Your task to perform on an android device: turn on data saver in the chrome app Image 0: 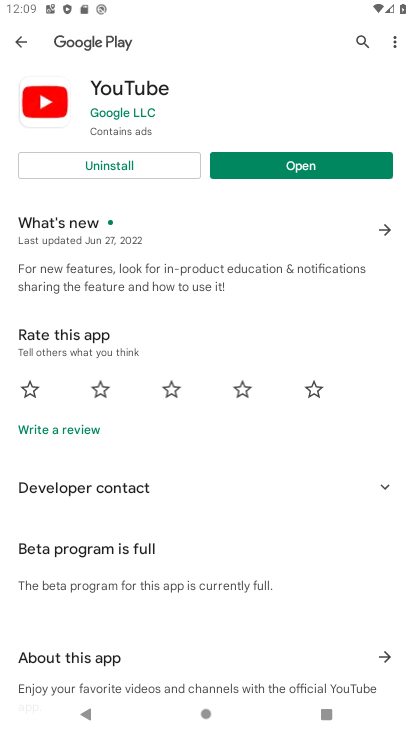
Step 0: press home button
Your task to perform on an android device: turn on data saver in the chrome app Image 1: 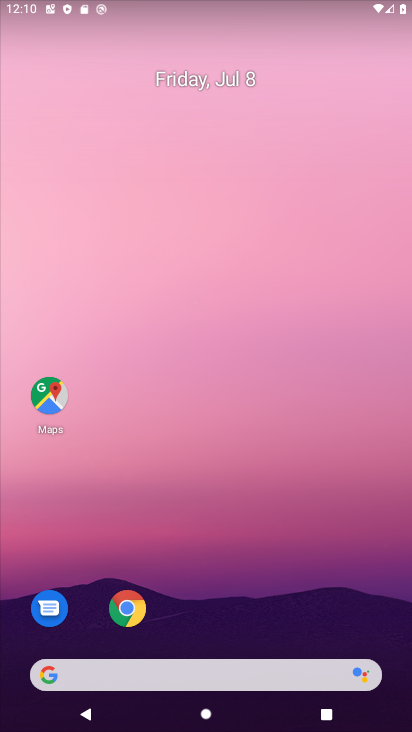
Step 1: drag from (325, 591) to (323, 301)
Your task to perform on an android device: turn on data saver in the chrome app Image 2: 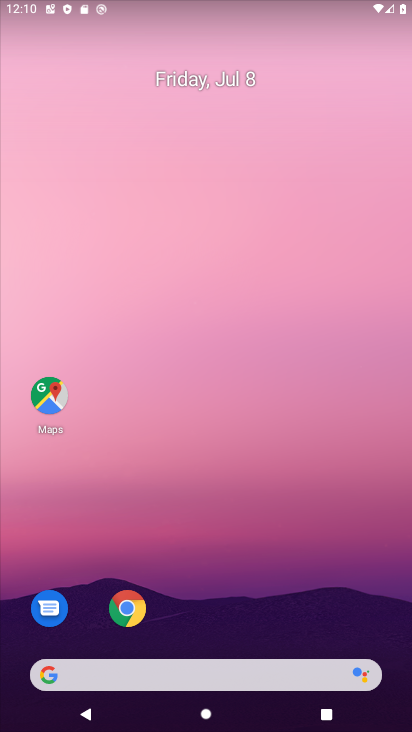
Step 2: click (120, 615)
Your task to perform on an android device: turn on data saver in the chrome app Image 3: 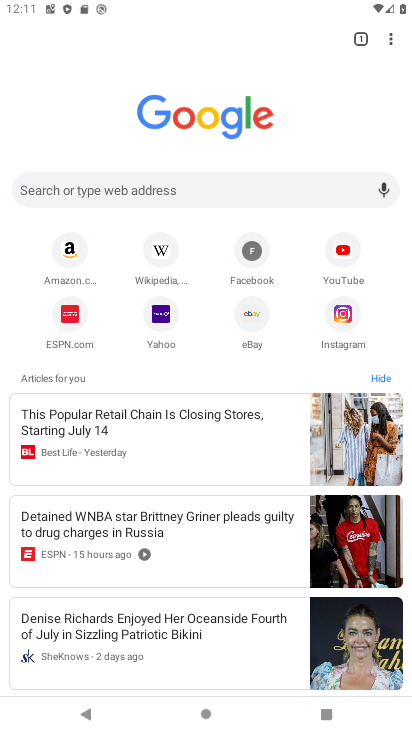
Step 3: click (387, 28)
Your task to perform on an android device: turn on data saver in the chrome app Image 4: 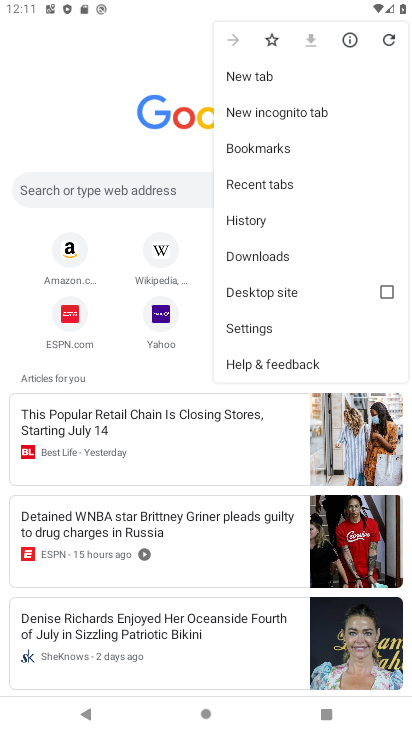
Step 4: click (299, 320)
Your task to perform on an android device: turn on data saver in the chrome app Image 5: 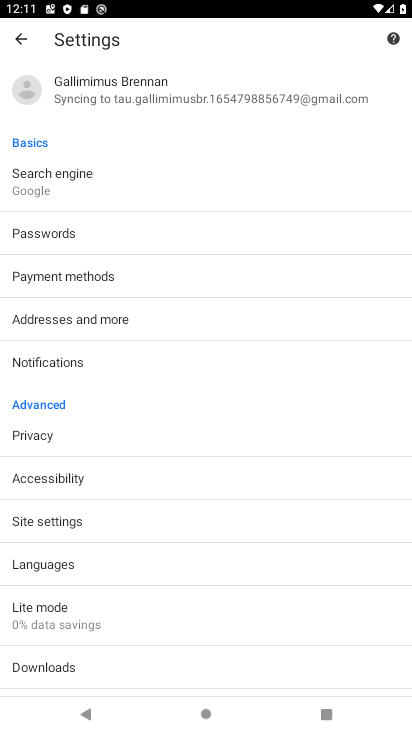
Step 5: click (128, 621)
Your task to perform on an android device: turn on data saver in the chrome app Image 6: 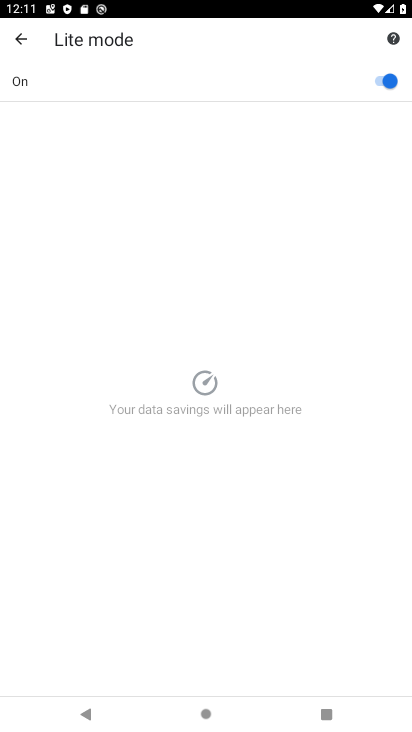
Step 6: click (386, 74)
Your task to perform on an android device: turn on data saver in the chrome app Image 7: 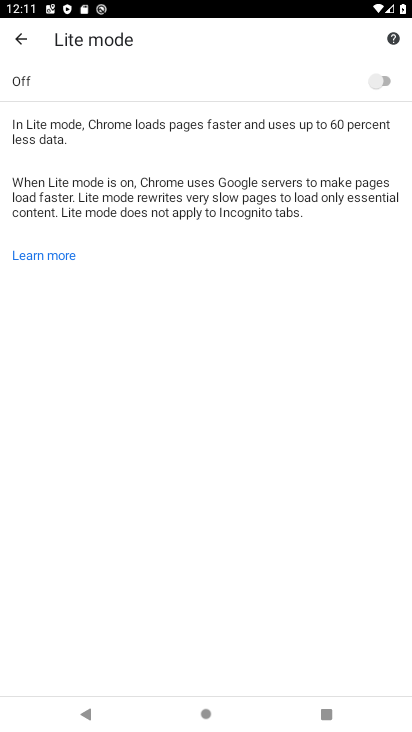
Step 7: task complete